Your task to perform on an android device: toggle location history Image 0: 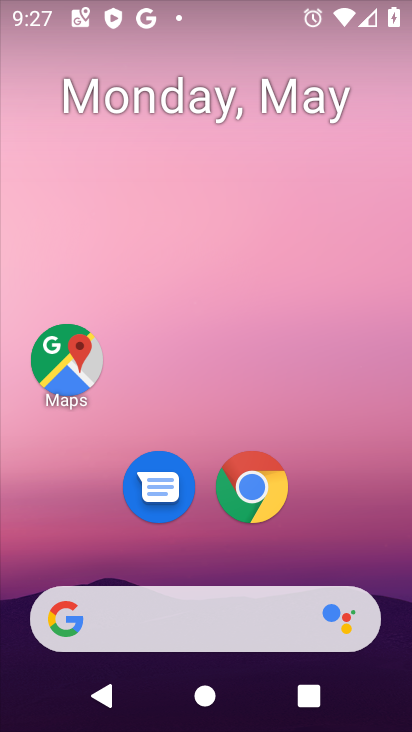
Step 0: drag from (203, 560) to (186, 127)
Your task to perform on an android device: toggle location history Image 1: 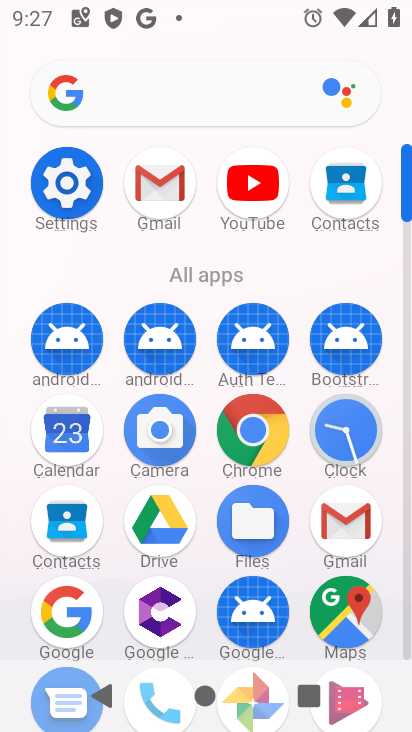
Step 1: click (59, 200)
Your task to perform on an android device: toggle location history Image 2: 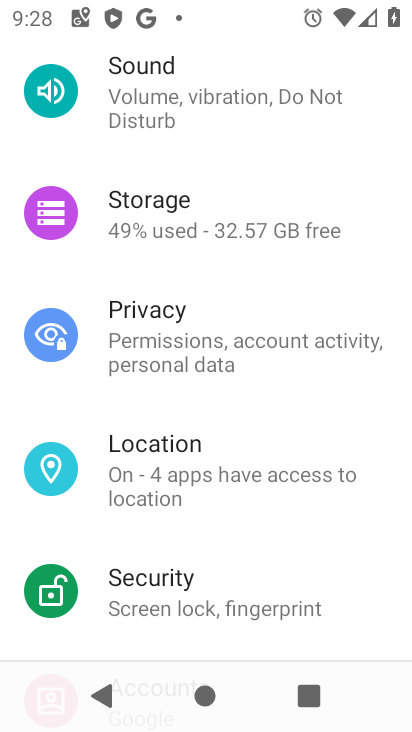
Step 2: click (196, 468)
Your task to perform on an android device: toggle location history Image 3: 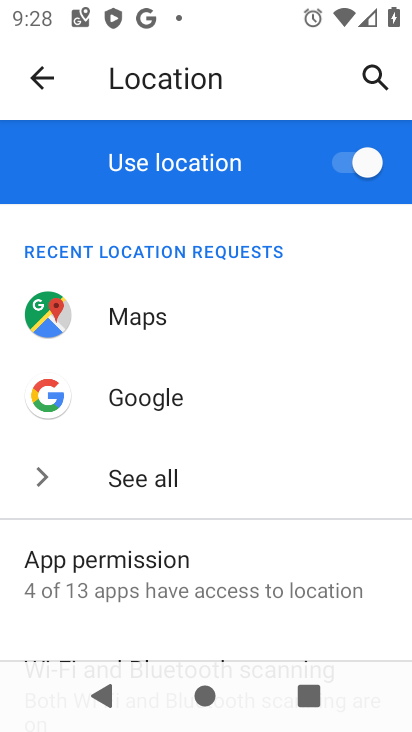
Step 3: drag from (147, 570) to (240, 192)
Your task to perform on an android device: toggle location history Image 4: 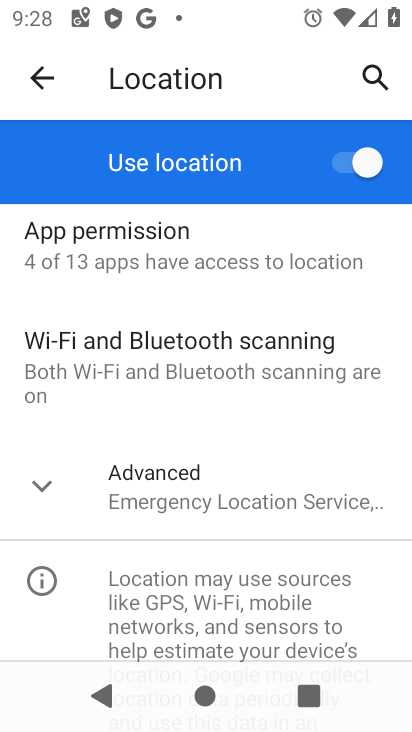
Step 4: click (185, 491)
Your task to perform on an android device: toggle location history Image 5: 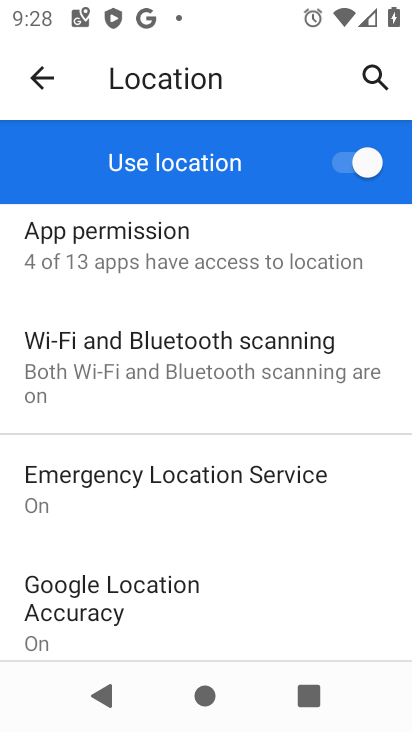
Step 5: drag from (142, 635) to (188, 111)
Your task to perform on an android device: toggle location history Image 6: 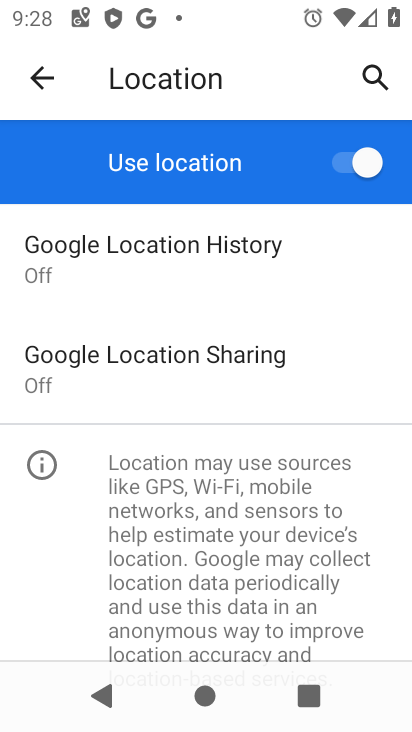
Step 6: click (129, 242)
Your task to perform on an android device: toggle location history Image 7: 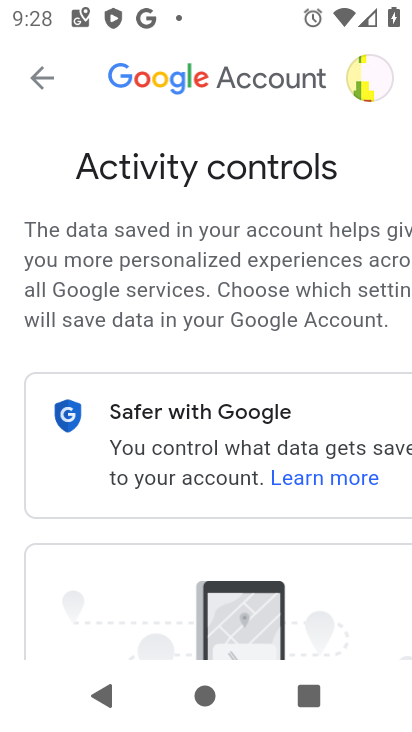
Step 7: drag from (110, 643) to (179, 157)
Your task to perform on an android device: toggle location history Image 8: 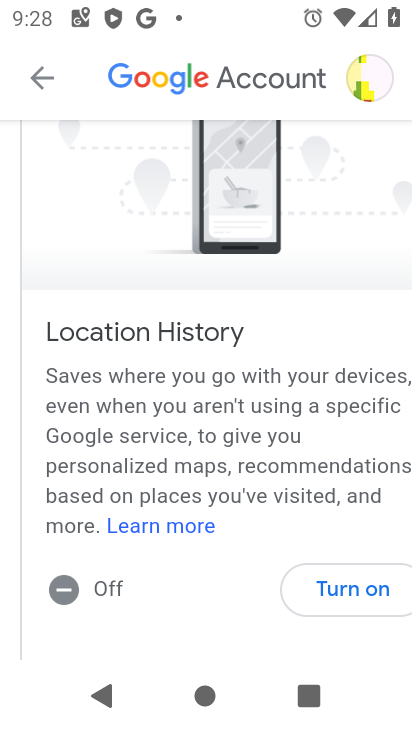
Step 8: click (339, 580)
Your task to perform on an android device: toggle location history Image 9: 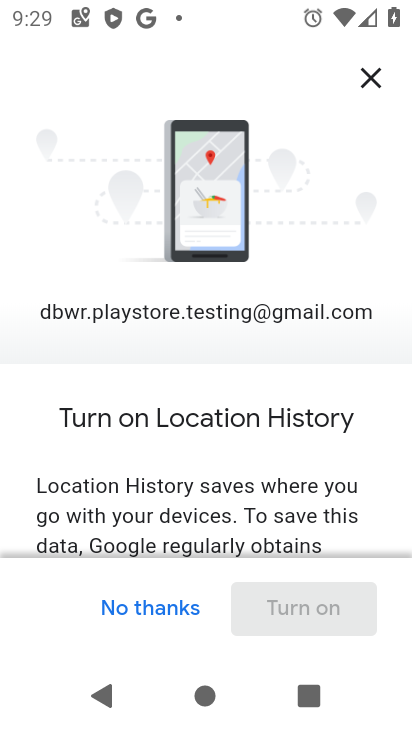
Step 9: click (135, 602)
Your task to perform on an android device: toggle location history Image 10: 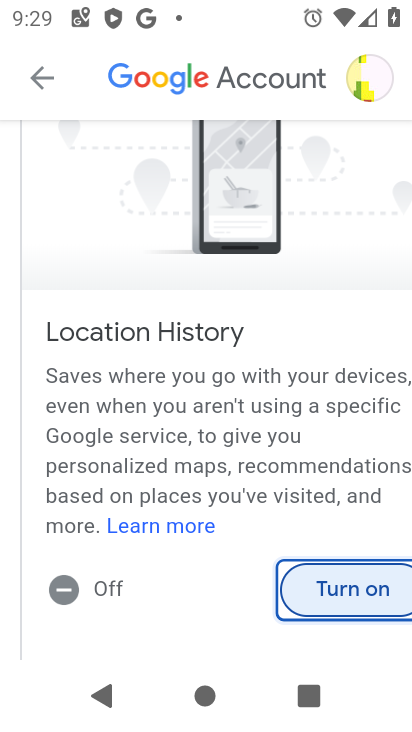
Step 10: click (347, 575)
Your task to perform on an android device: toggle location history Image 11: 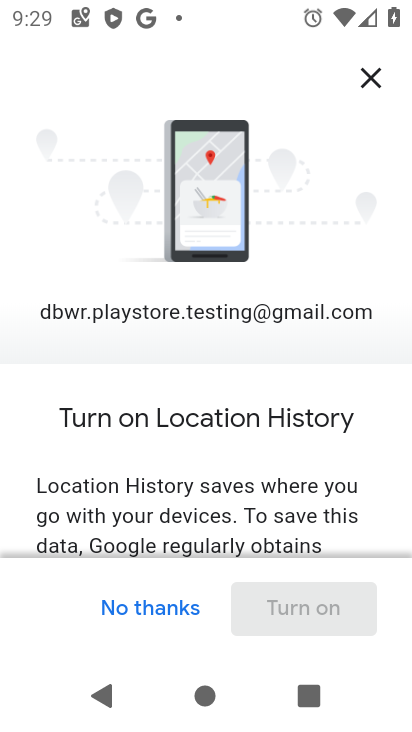
Step 11: drag from (169, 503) to (250, 6)
Your task to perform on an android device: toggle location history Image 12: 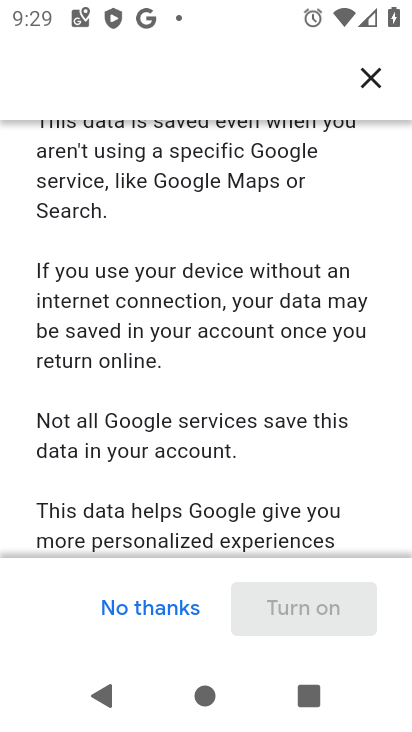
Step 12: drag from (149, 507) to (209, 169)
Your task to perform on an android device: toggle location history Image 13: 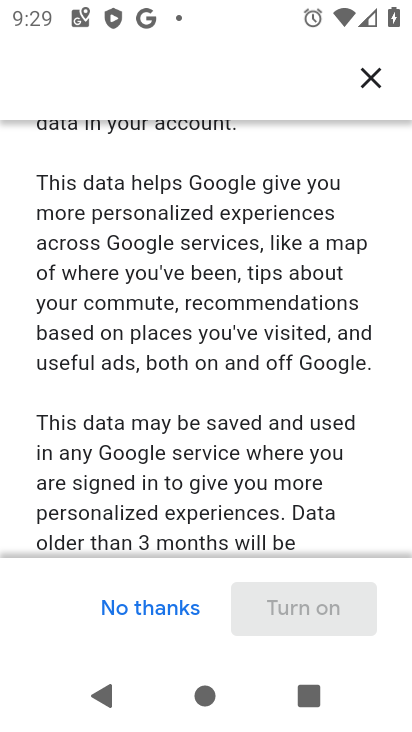
Step 13: drag from (141, 483) to (261, 34)
Your task to perform on an android device: toggle location history Image 14: 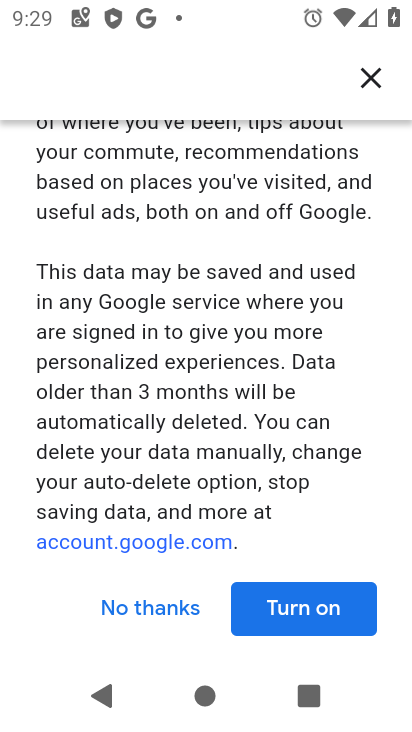
Step 14: click (296, 615)
Your task to perform on an android device: toggle location history Image 15: 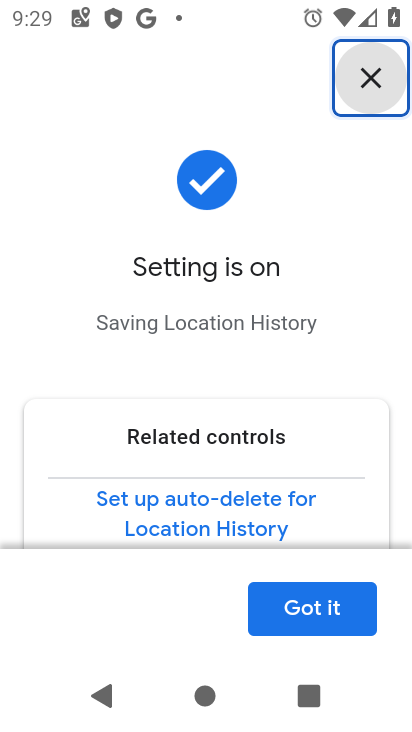
Step 15: click (296, 615)
Your task to perform on an android device: toggle location history Image 16: 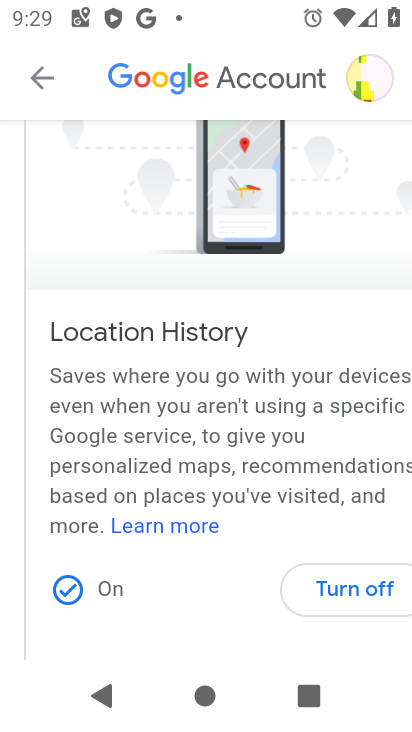
Step 16: task complete